Your task to perform on an android device: toggle improve location accuracy Image 0: 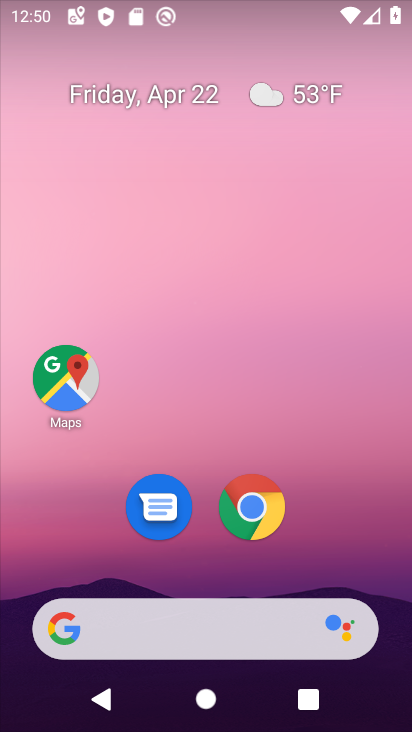
Step 0: drag from (330, 515) to (255, 102)
Your task to perform on an android device: toggle improve location accuracy Image 1: 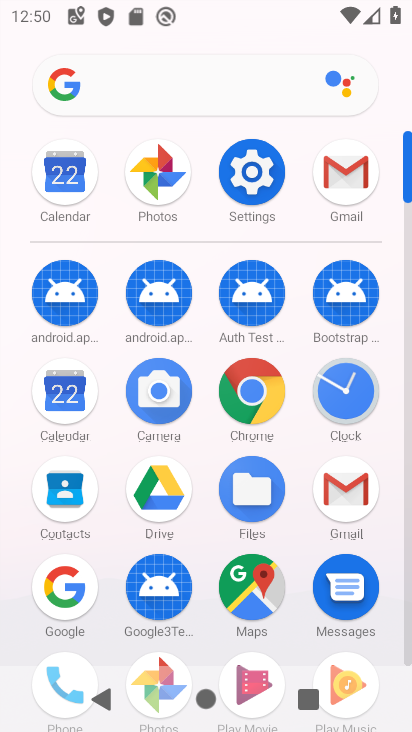
Step 1: click (258, 163)
Your task to perform on an android device: toggle improve location accuracy Image 2: 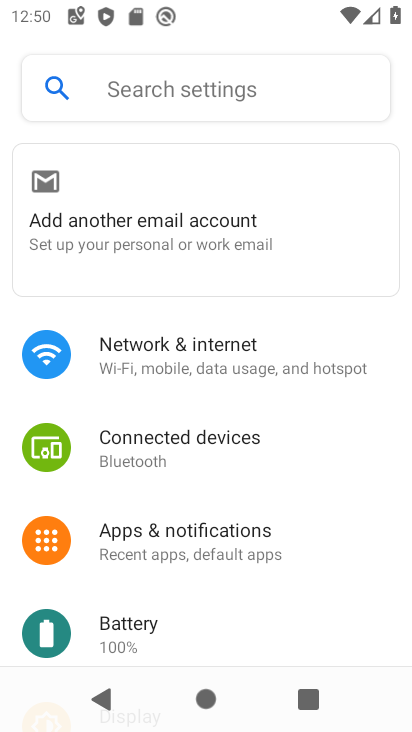
Step 2: drag from (190, 619) to (201, 169)
Your task to perform on an android device: toggle improve location accuracy Image 3: 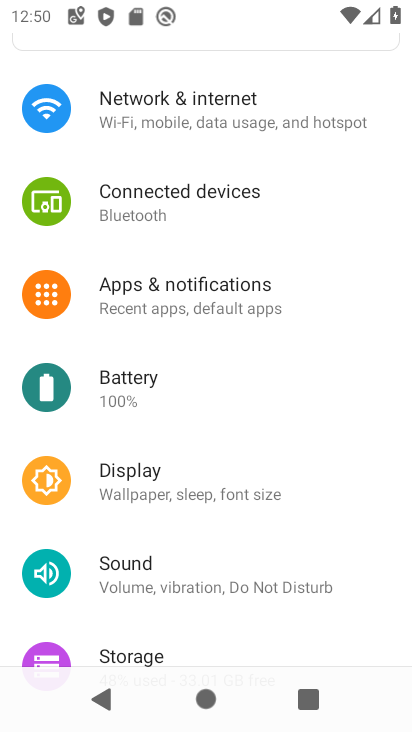
Step 3: drag from (219, 581) to (221, 219)
Your task to perform on an android device: toggle improve location accuracy Image 4: 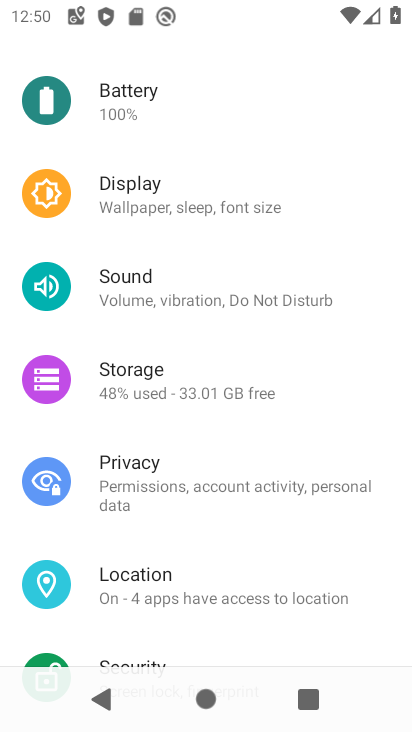
Step 4: click (137, 582)
Your task to perform on an android device: toggle improve location accuracy Image 5: 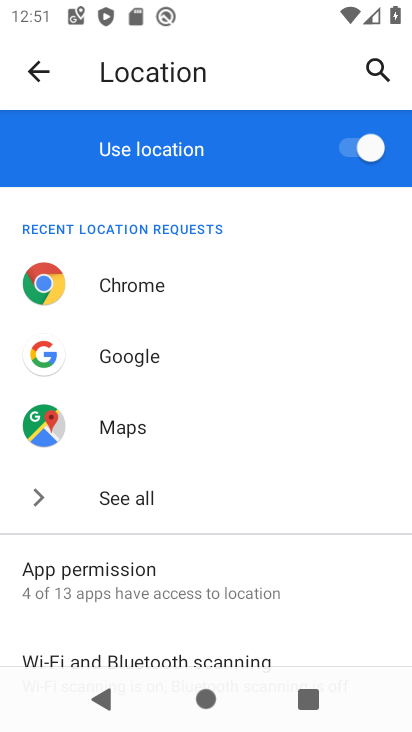
Step 5: drag from (212, 626) to (217, 192)
Your task to perform on an android device: toggle improve location accuracy Image 6: 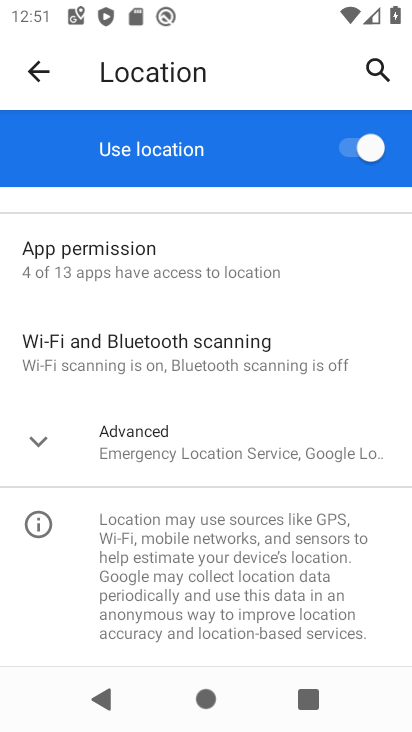
Step 6: click (195, 442)
Your task to perform on an android device: toggle improve location accuracy Image 7: 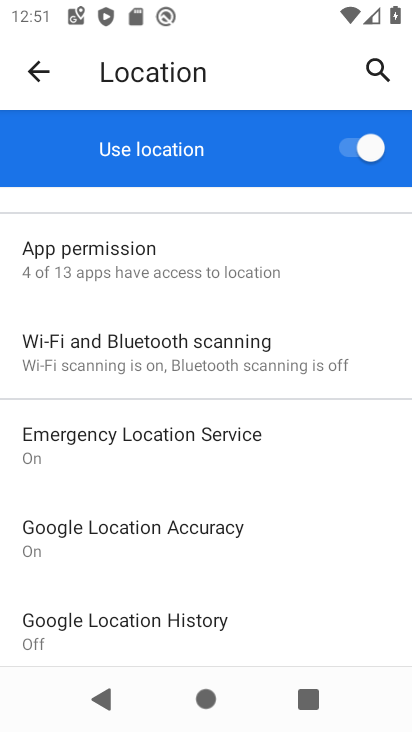
Step 7: click (176, 527)
Your task to perform on an android device: toggle improve location accuracy Image 8: 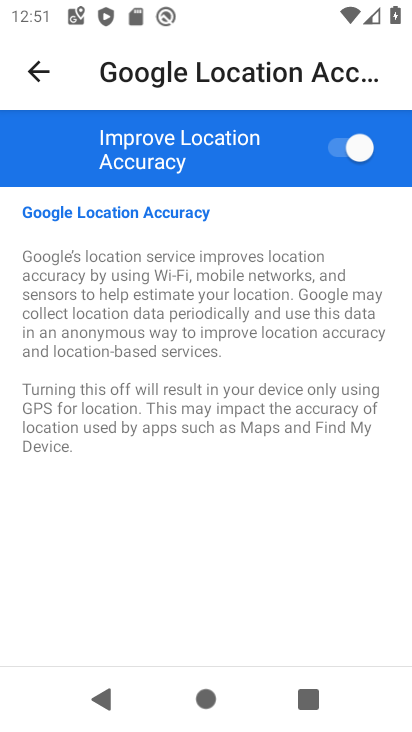
Step 8: click (360, 150)
Your task to perform on an android device: toggle improve location accuracy Image 9: 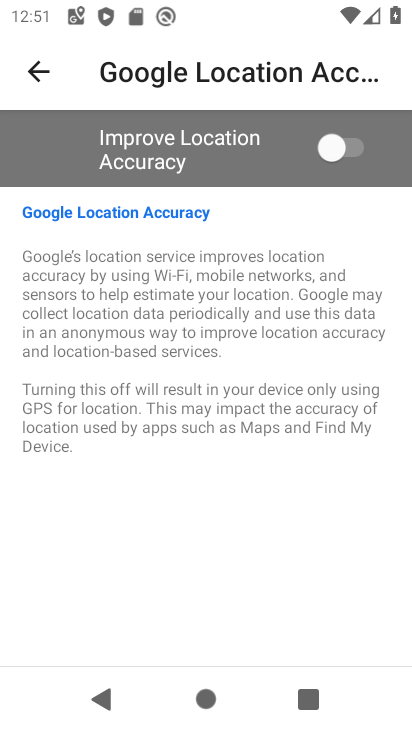
Step 9: task complete